Your task to perform on an android device: Go to eBay Image 0: 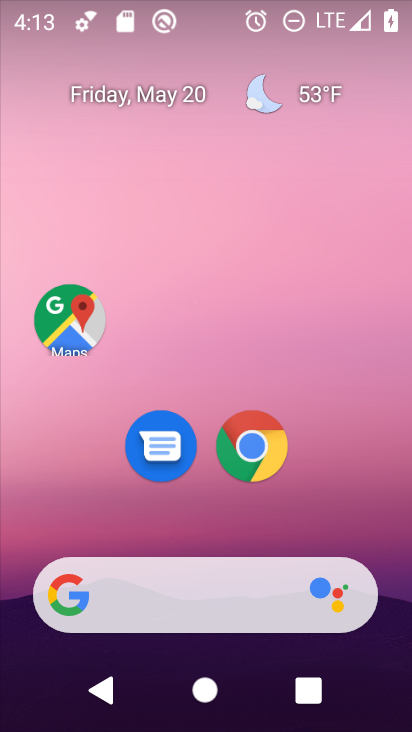
Step 0: drag from (342, 506) to (322, 99)
Your task to perform on an android device: Go to eBay Image 1: 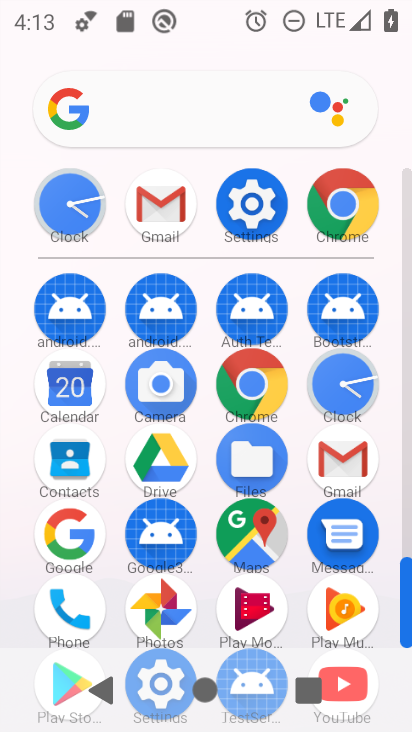
Step 1: click (332, 197)
Your task to perform on an android device: Go to eBay Image 2: 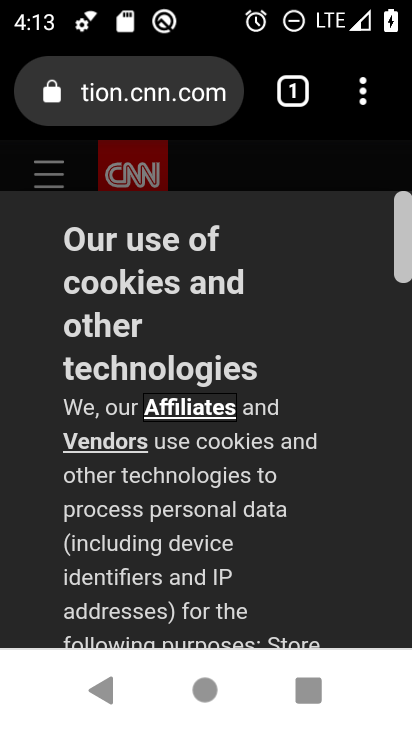
Step 2: click (175, 95)
Your task to perform on an android device: Go to eBay Image 3: 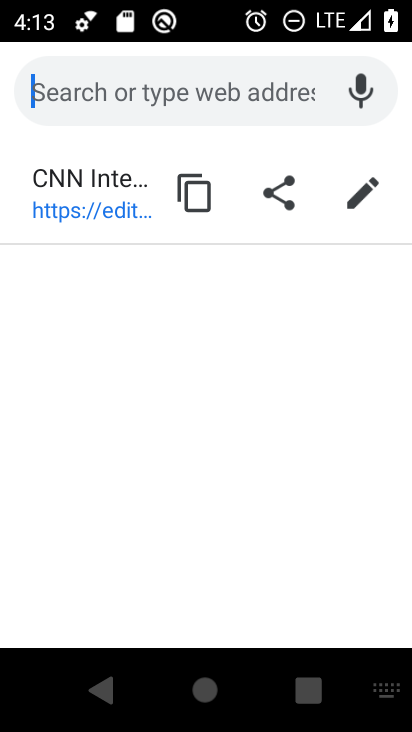
Step 3: type "ebay"
Your task to perform on an android device: Go to eBay Image 4: 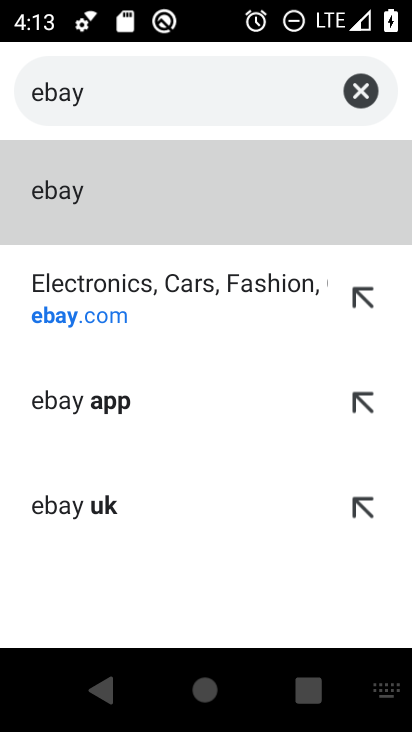
Step 4: click (124, 304)
Your task to perform on an android device: Go to eBay Image 5: 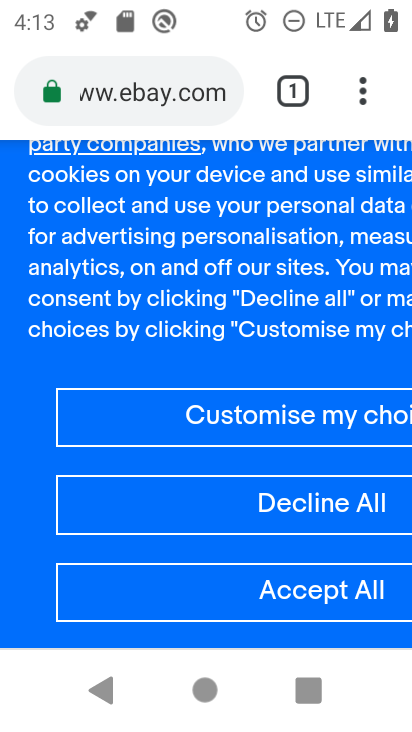
Step 5: task complete